Your task to perform on an android device: Open Google Image 0: 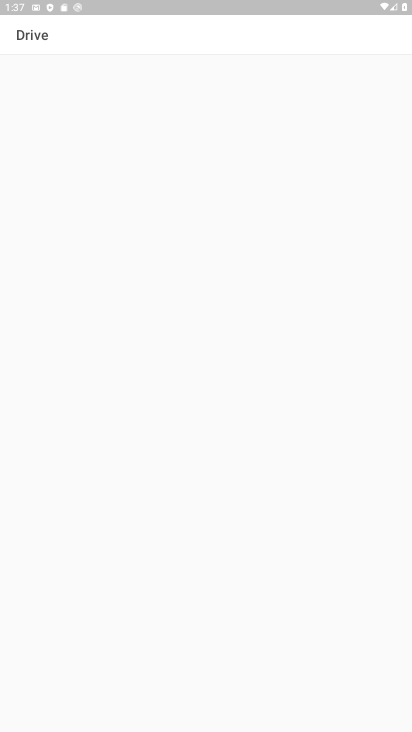
Step 0: press home button
Your task to perform on an android device: Open Google Image 1: 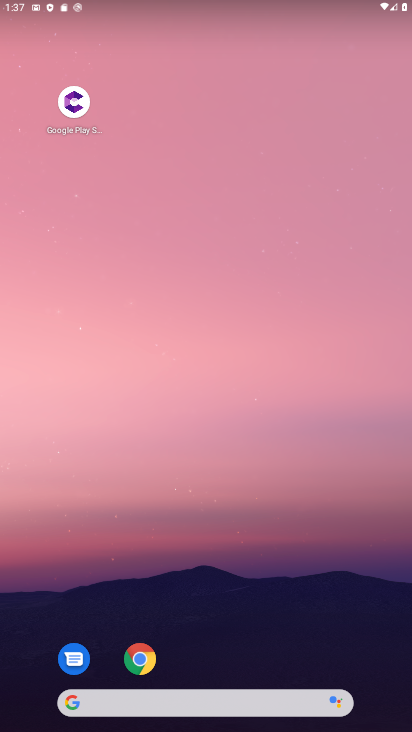
Step 1: click (197, 700)
Your task to perform on an android device: Open Google Image 2: 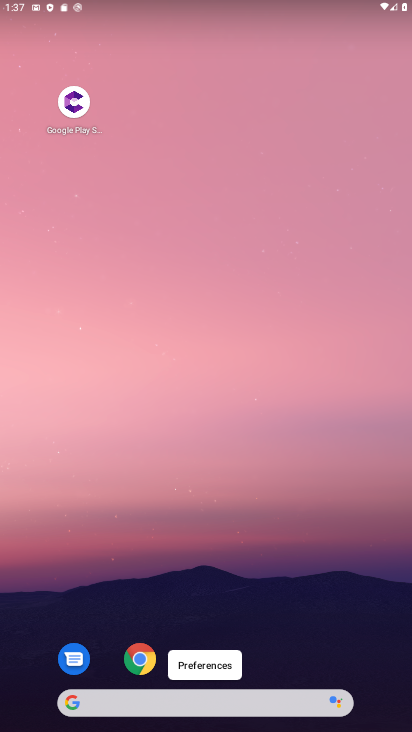
Step 2: click (166, 710)
Your task to perform on an android device: Open Google Image 3: 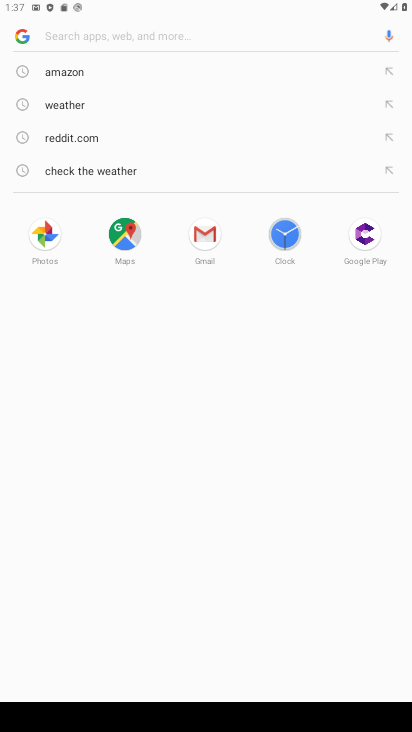
Step 3: task complete